Your task to perform on an android device: Open Google Maps Image 0: 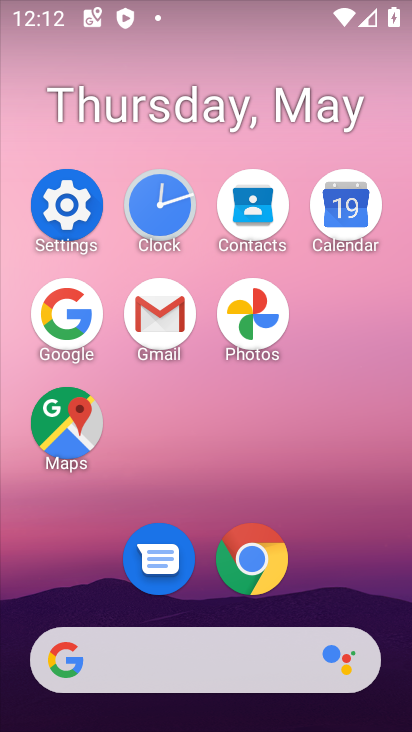
Step 0: click (78, 423)
Your task to perform on an android device: Open Google Maps Image 1: 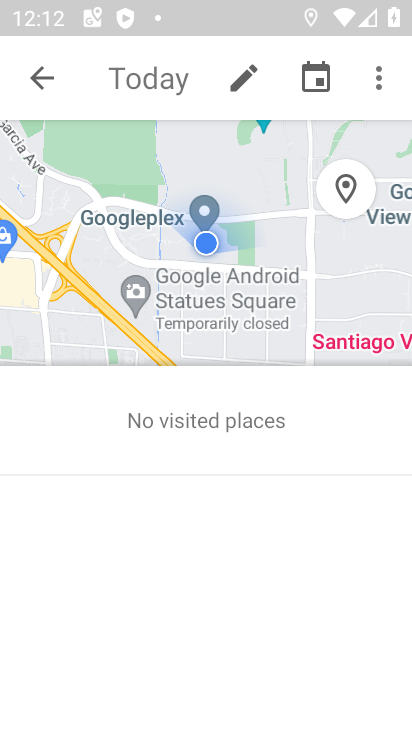
Step 1: task complete